Your task to perform on an android device: Open Amazon Image 0: 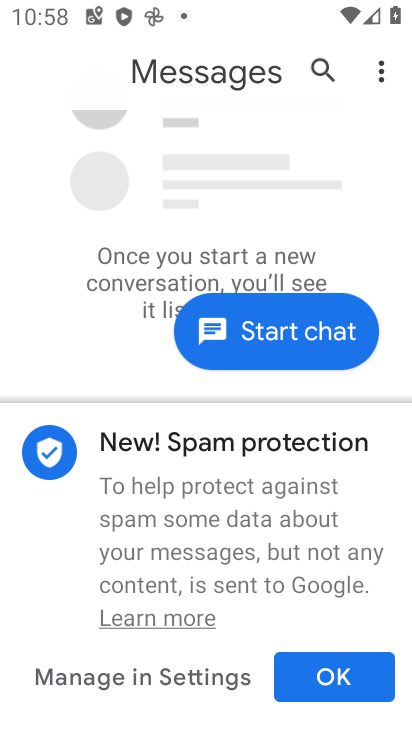
Step 0: press home button
Your task to perform on an android device: Open Amazon Image 1: 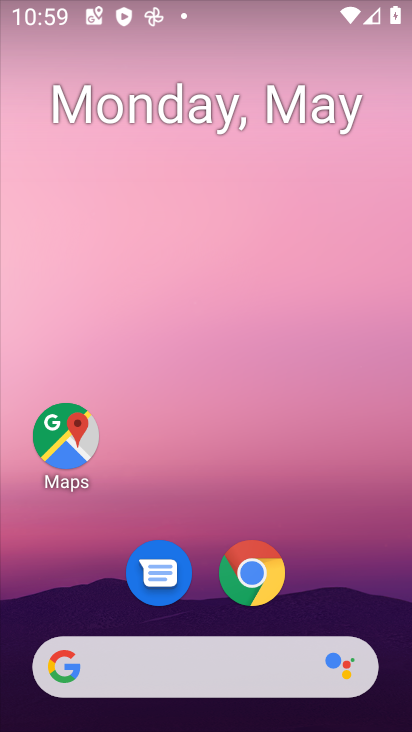
Step 1: click (252, 589)
Your task to perform on an android device: Open Amazon Image 2: 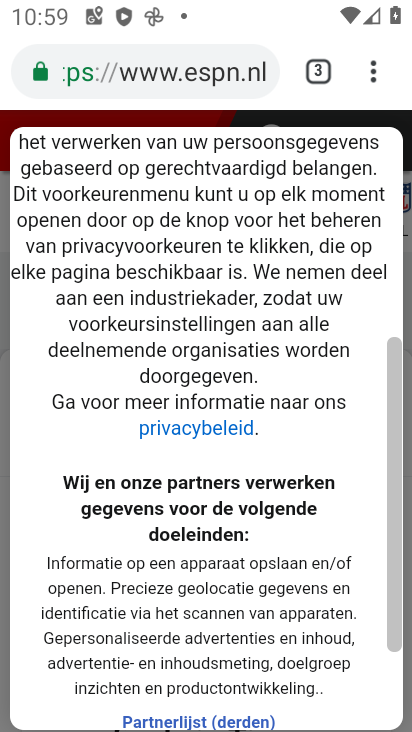
Step 2: click (231, 84)
Your task to perform on an android device: Open Amazon Image 3: 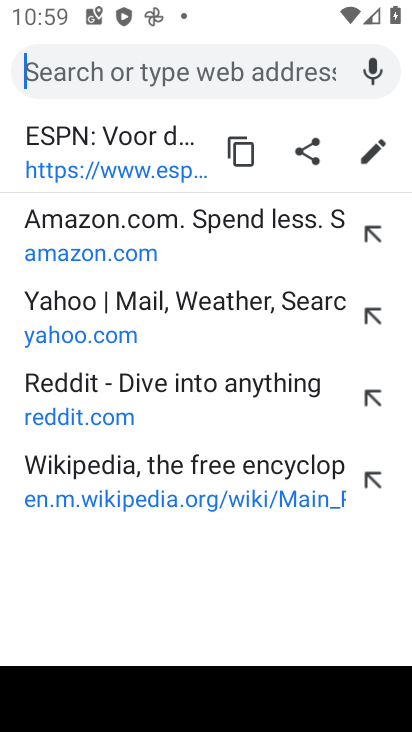
Step 3: click (154, 249)
Your task to perform on an android device: Open Amazon Image 4: 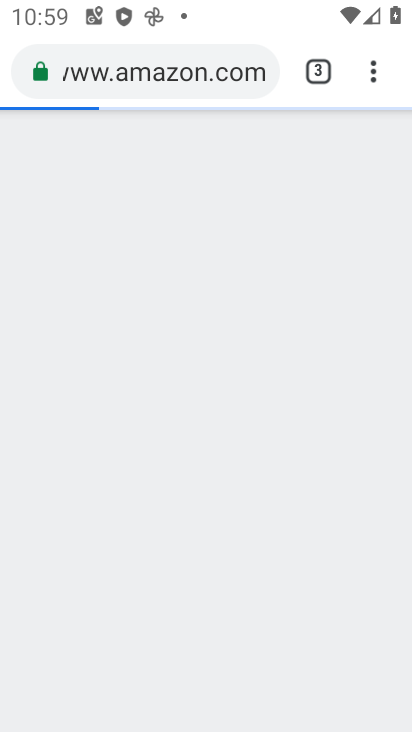
Step 4: task complete